Your task to perform on an android device: allow cookies in the chrome app Image 0: 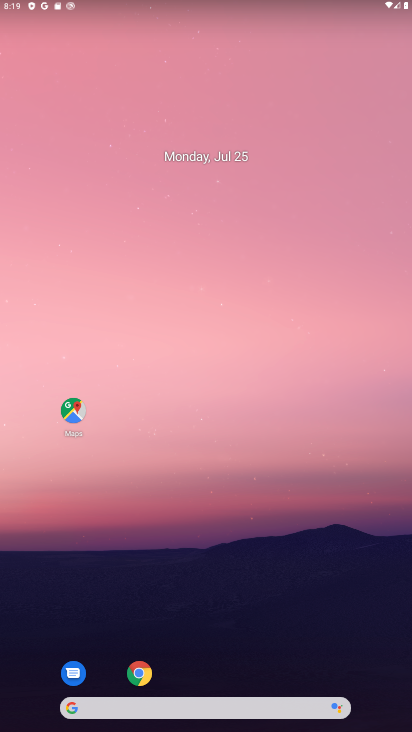
Step 0: click (146, 681)
Your task to perform on an android device: allow cookies in the chrome app Image 1: 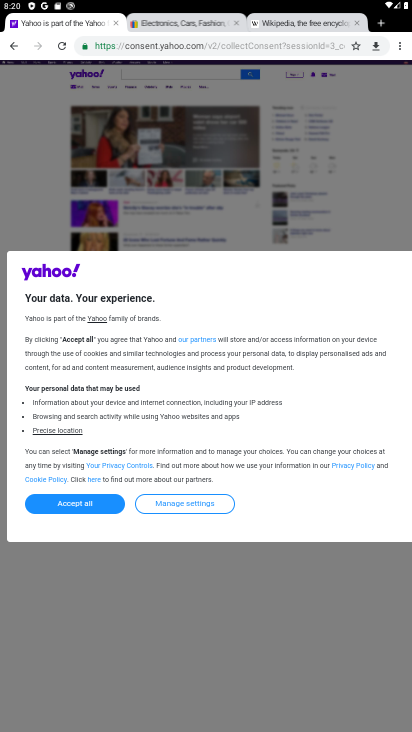
Step 1: click (406, 40)
Your task to perform on an android device: allow cookies in the chrome app Image 2: 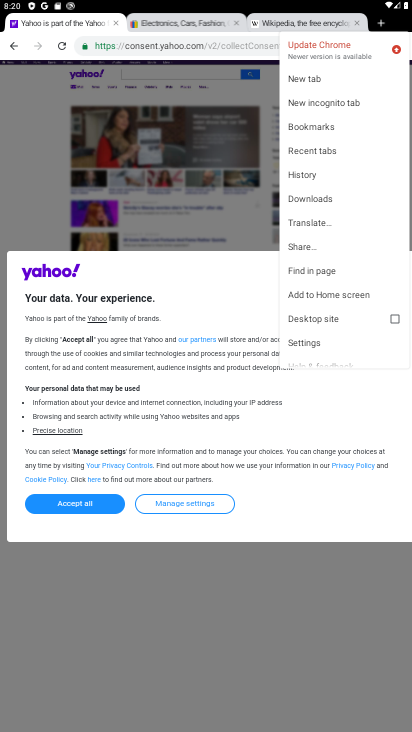
Step 2: click (311, 350)
Your task to perform on an android device: allow cookies in the chrome app Image 3: 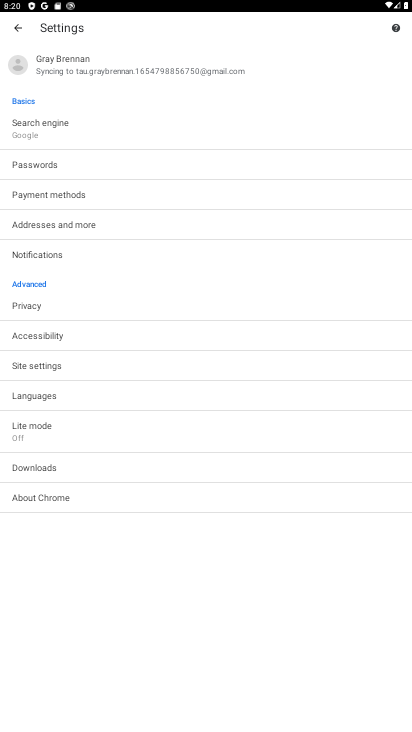
Step 3: click (74, 370)
Your task to perform on an android device: allow cookies in the chrome app Image 4: 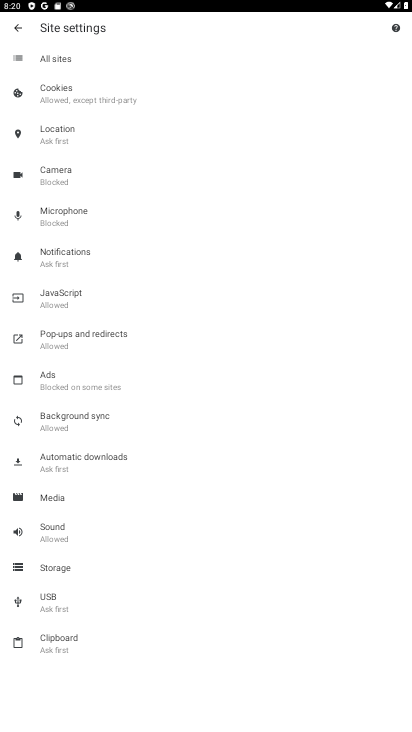
Step 4: task complete